Your task to perform on an android device: Go to notification settings Image 0: 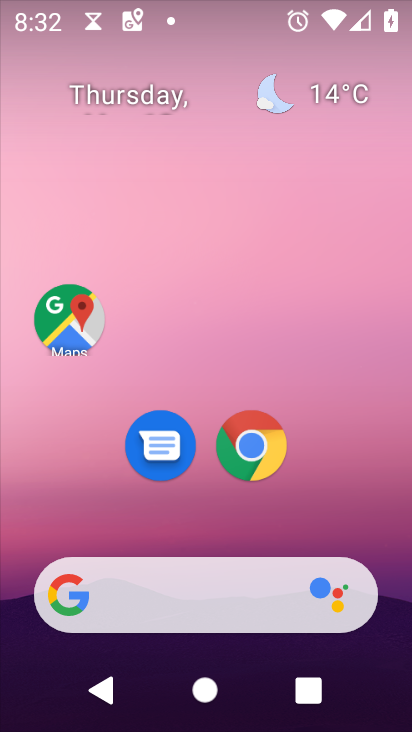
Step 0: drag from (221, 721) to (225, 33)
Your task to perform on an android device: Go to notification settings Image 1: 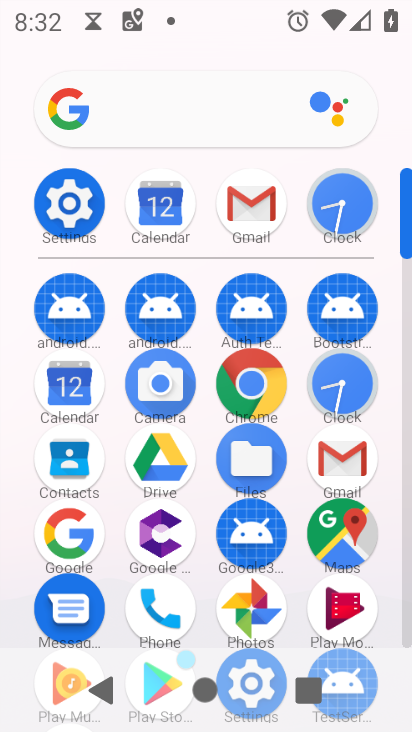
Step 1: click (69, 195)
Your task to perform on an android device: Go to notification settings Image 2: 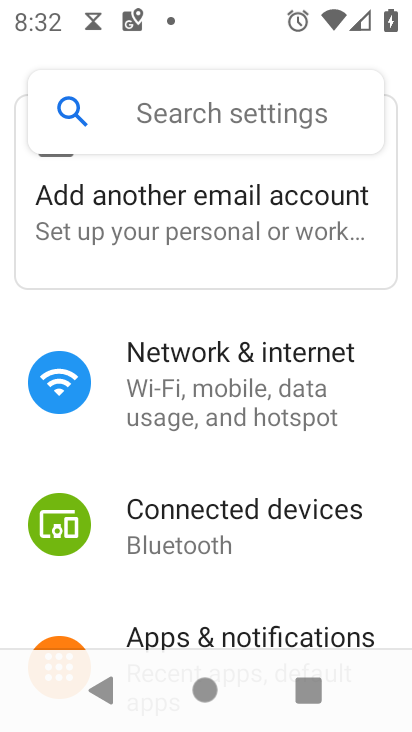
Step 2: click (242, 639)
Your task to perform on an android device: Go to notification settings Image 3: 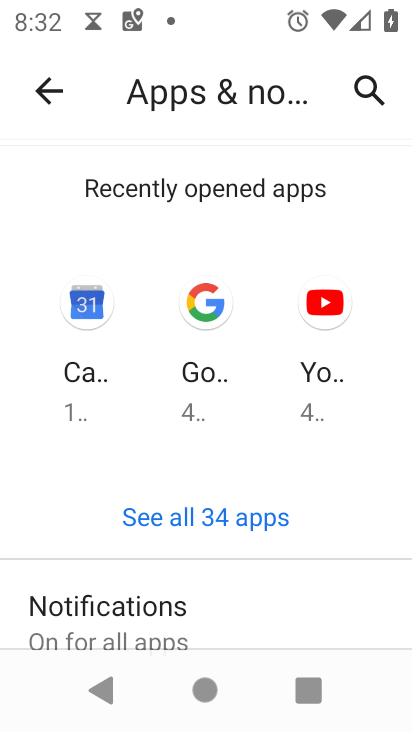
Step 3: click (141, 613)
Your task to perform on an android device: Go to notification settings Image 4: 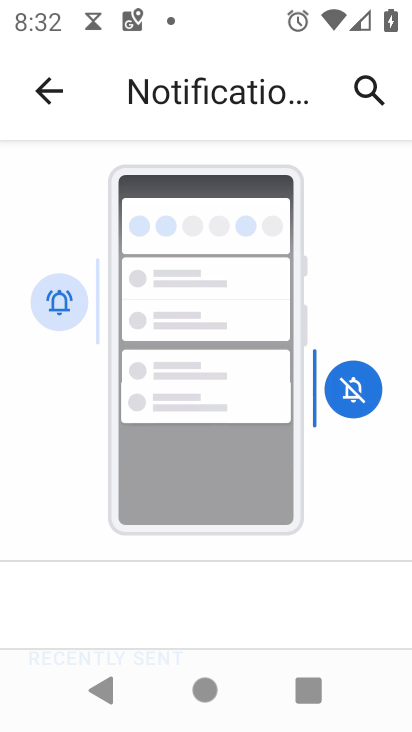
Step 4: task complete